Your task to perform on an android device: toggle improve location accuracy Image 0: 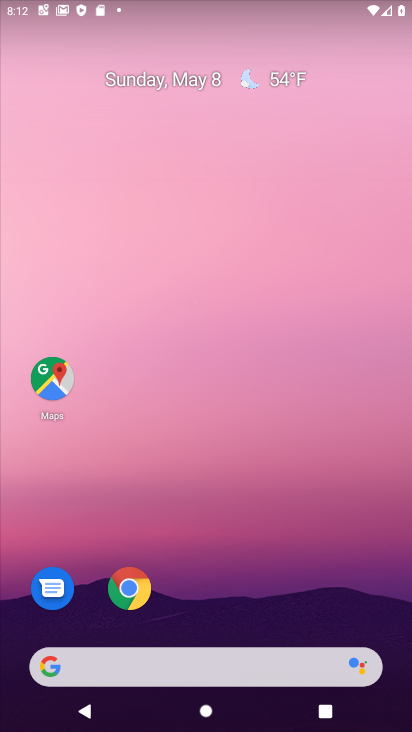
Step 0: drag from (325, 591) to (295, 152)
Your task to perform on an android device: toggle improve location accuracy Image 1: 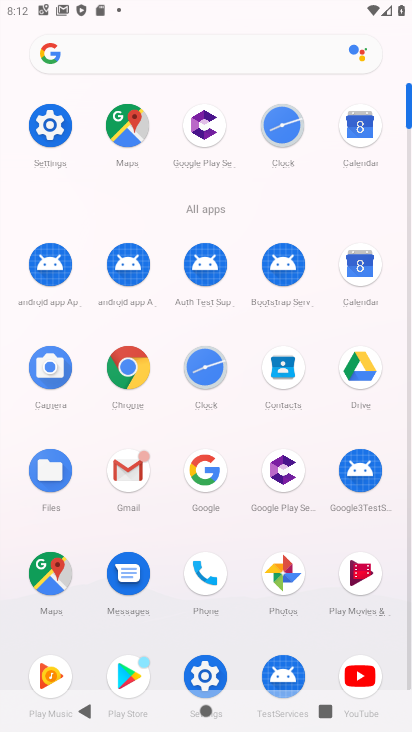
Step 1: click (201, 667)
Your task to perform on an android device: toggle improve location accuracy Image 2: 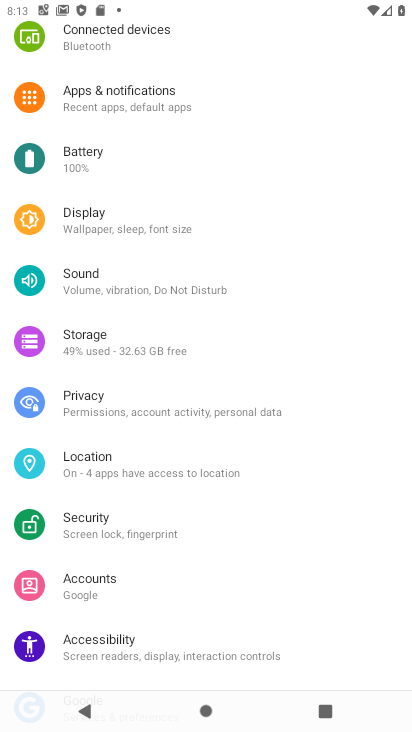
Step 2: click (145, 467)
Your task to perform on an android device: toggle improve location accuracy Image 3: 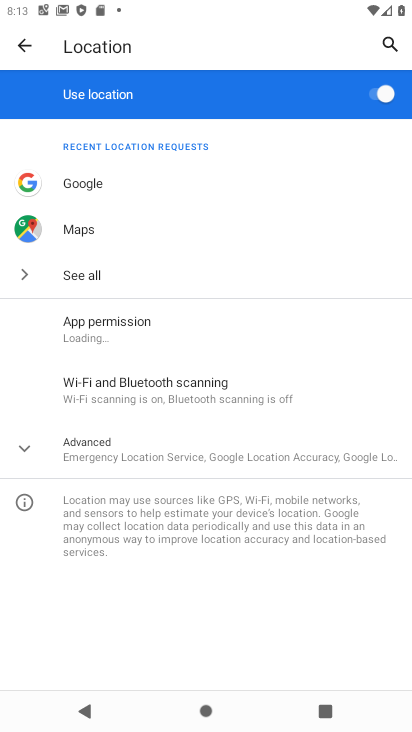
Step 3: click (128, 458)
Your task to perform on an android device: toggle improve location accuracy Image 4: 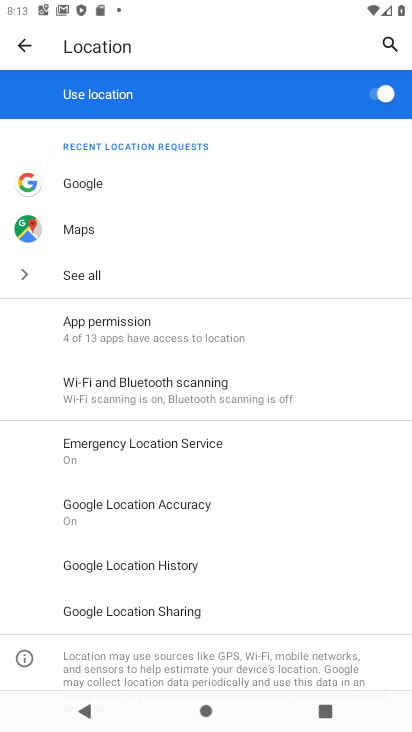
Step 4: click (184, 513)
Your task to perform on an android device: toggle improve location accuracy Image 5: 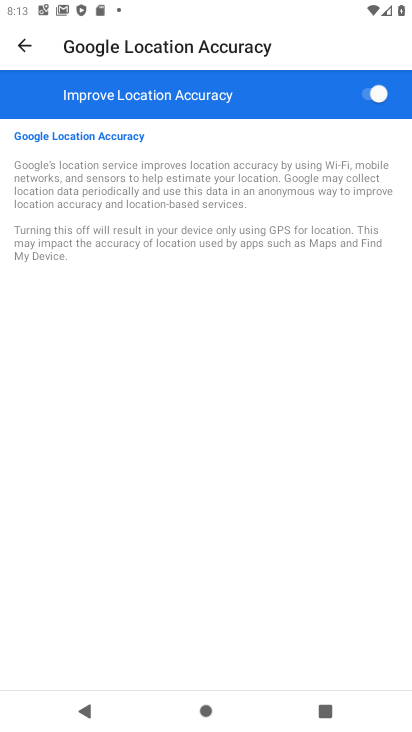
Step 5: click (382, 95)
Your task to perform on an android device: toggle improve location accuracy Image 6: 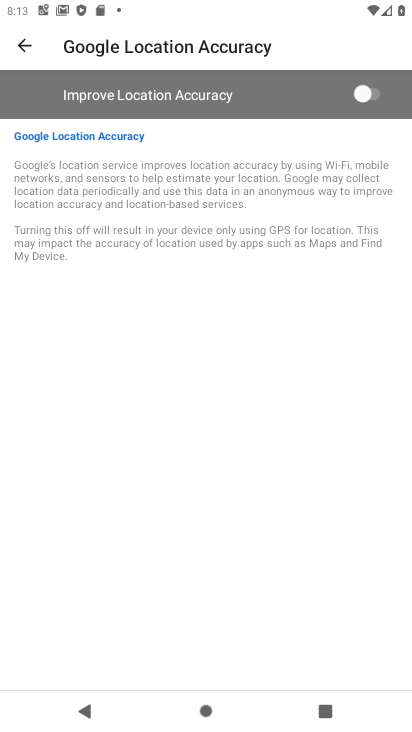
Step 6: task complete